Your task to perform on an android device: show emergency info Image 0: 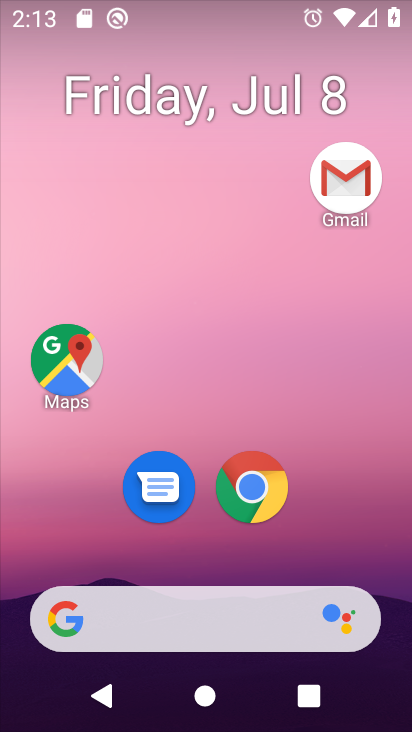
Step 0: drag from (349, 539) to (340, 188)
Your task to perform on an android device: show emergency info Image 1: 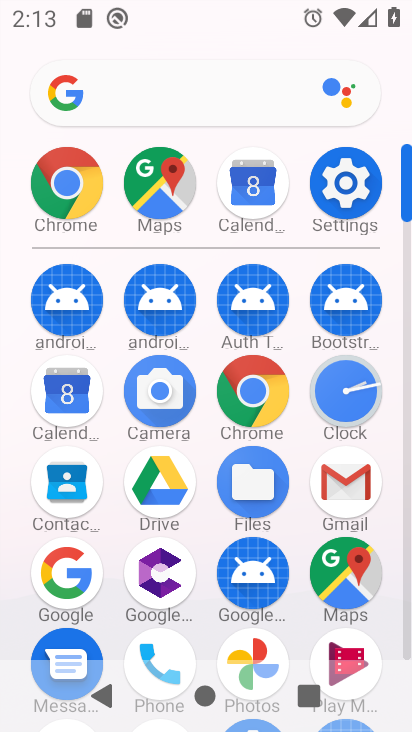
Step 1: click (344, 214)
Your task to perform on an android device: show emergency info Image 2: 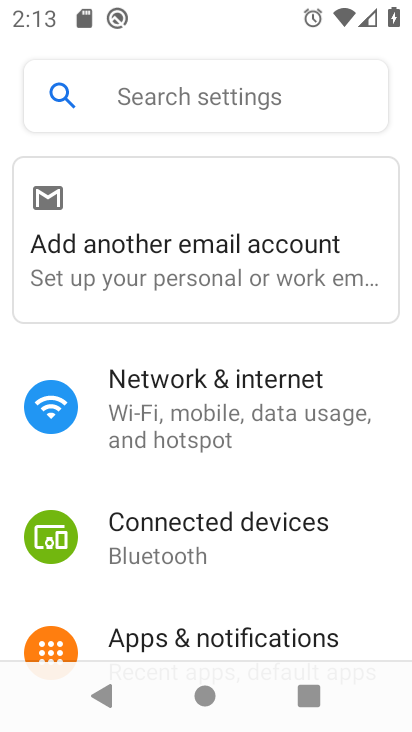
Step 2: drag from (356, 545) to (366, 454)
Your task to perform on an android device: show emergency info Image 3: 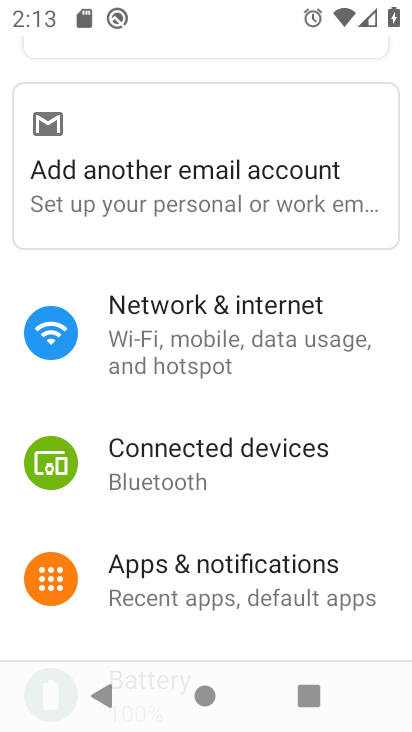
Step 3: drag from (378, 555) to (385, 410)
Your task to perform on an android device: show emergency info Image 4: 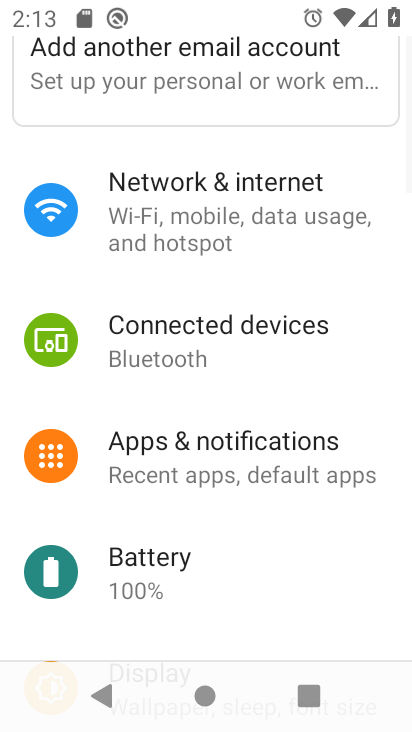
Step 4: drag from (361, 559) to (358, 377)
Your task to perform on an android device: show emergency info Image 5: 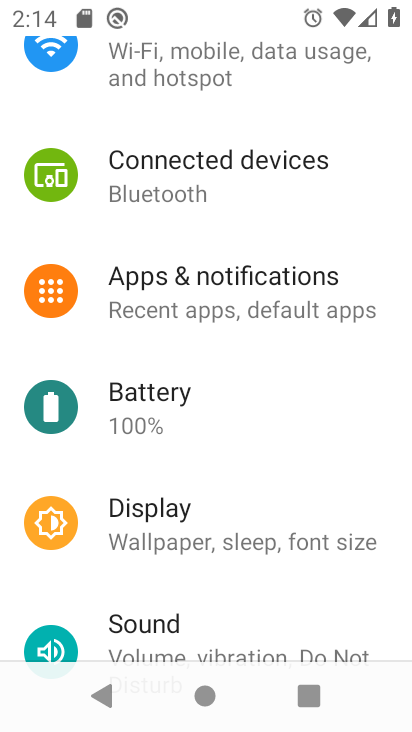
Step 5: drag from (353, 607) to (359, 417)
Your task to perform on an android device: show emergency info Image 6: 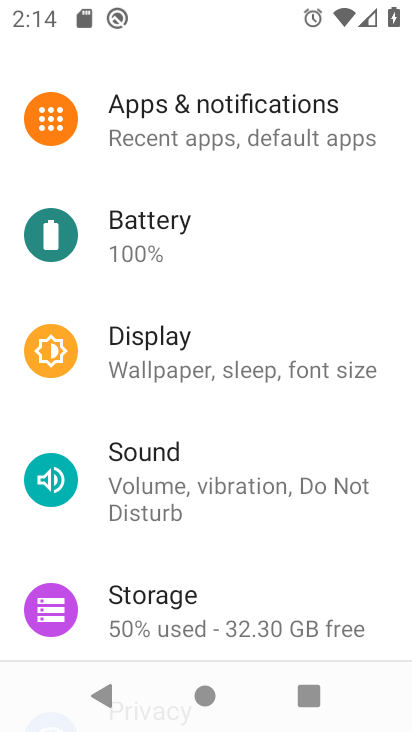
Step 6: drag from (360, 577) to (349, 442)
Your task to perform on an android device: show emergency info Image 7: 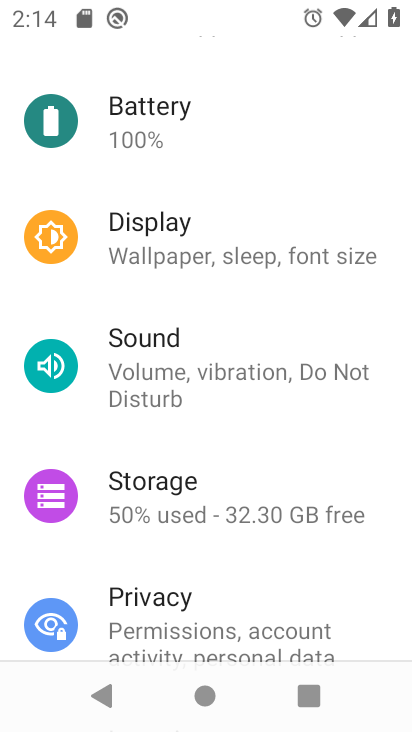
Step 7: drag from (337, 577) to (356, 412)
Your task to perform on an android device: show emergency info Image 8: 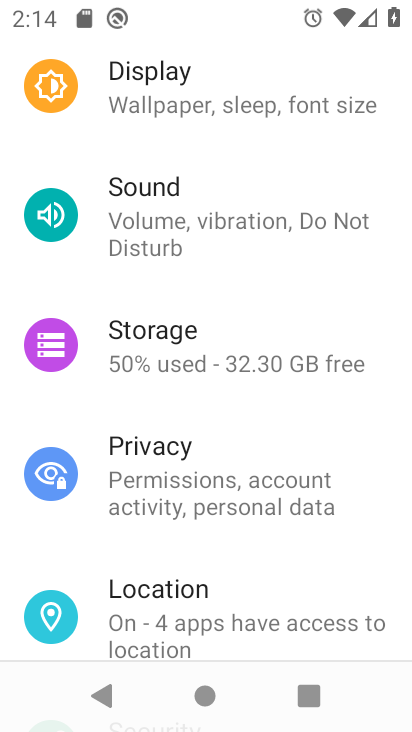
Step 8: drag from (354, 557) to (370, 410)
Your task to perform on an android device: show emergency info Image 9: 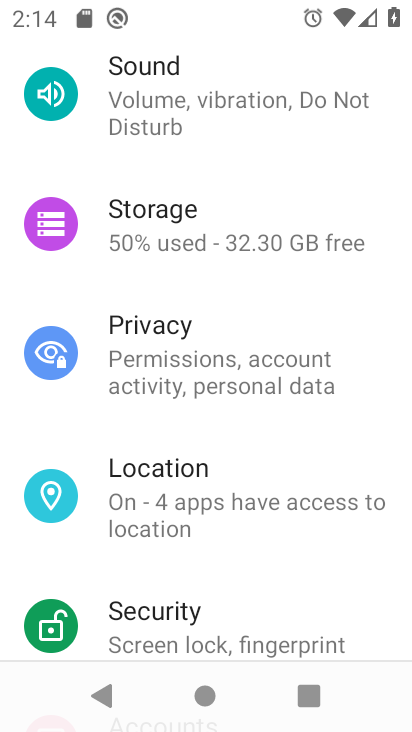
Step 9: drag from (367, 575) to (360, 404)
Your task to perform on an android device: show emergency info Image 10: 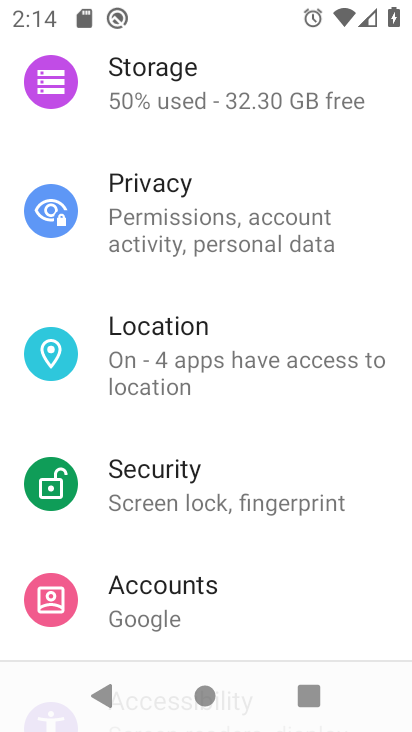
Step 10: drag from (348, 595) to (369, 453)
Your task to perform on an android device: show emergency info Image 11: 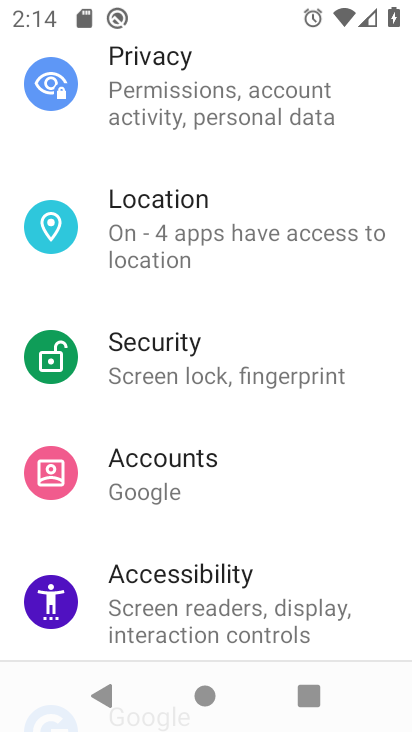
Step 11: drag from (359, 620) to (370, 421)
Your task to perform on an android device: show emergency info Image 12: 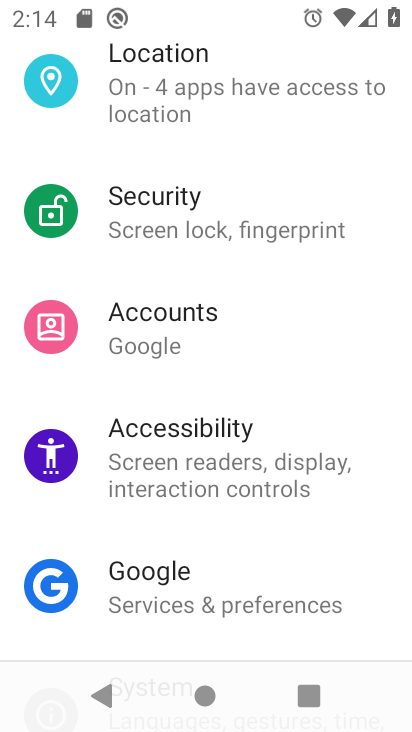
Step 12: drag from (367, 572) to (367, 447)
Your task to perform on an android device: show emergency info Image 13: 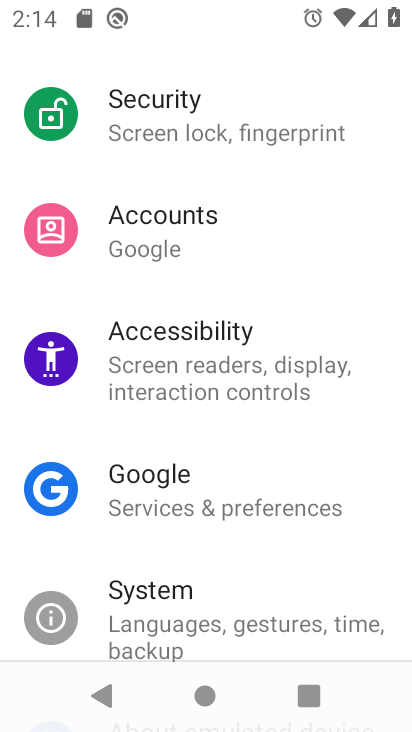
Step 13: drag from (353, 587) to (360, 420)
Your task to perform on an android device: show emergency info Image 14: 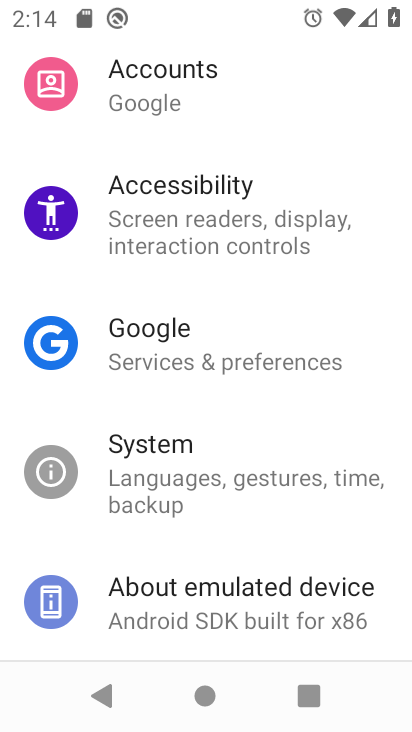
Step 14: click (328, 593)
Your task to perform on an android device: show emergency info Image 15: 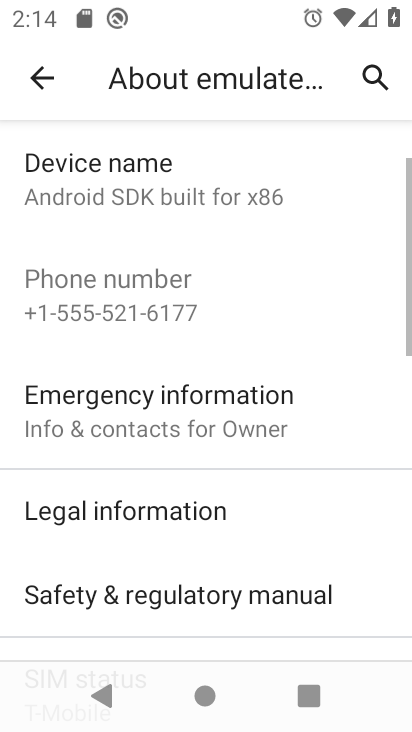
Step 15: click (274, 416)
Your task to perform on an android device: show emergency info Image 16: 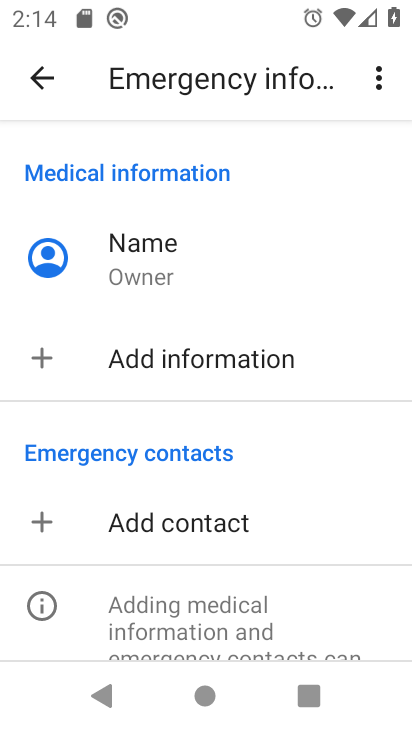
Step 16: task complete